Your task to perform on an android device: What's on my calendar today? Image 0: 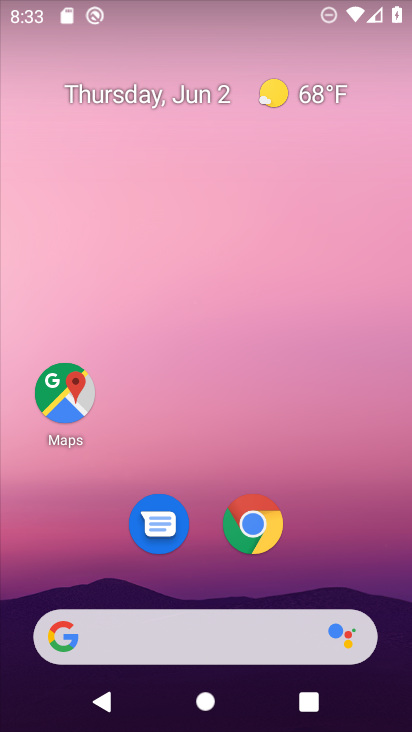
Step 0: drag from (218, 439) to (318, 0)
Your task to perform on an android device: What's on my calendar today? Image 1: 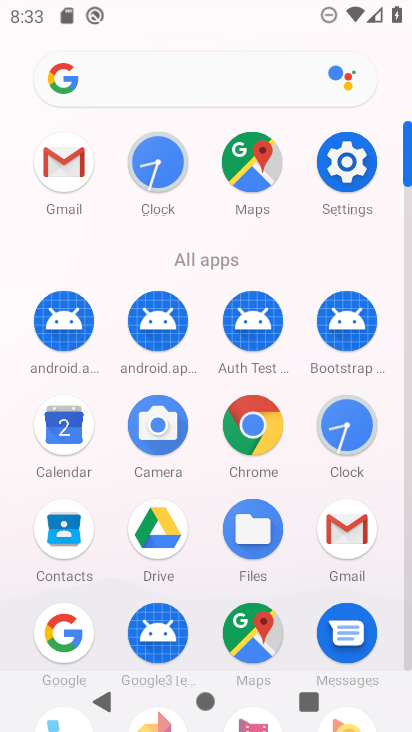
Step 1: click (65, 417)
Your task to perform on an android device: What's on my calendar today? Image 2: 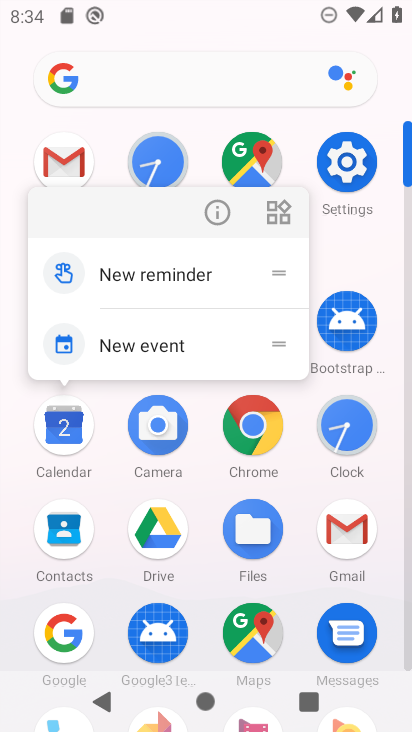
Step 2: click (70, 429)
Your task to perform on an android device: What's on my calendar today? Image 3: 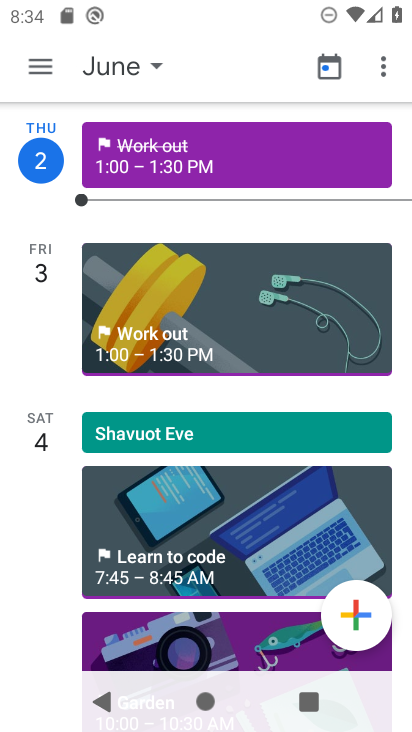
Step 3: task complete